Your task to perform on an android device: Go to Google maps Image 0: 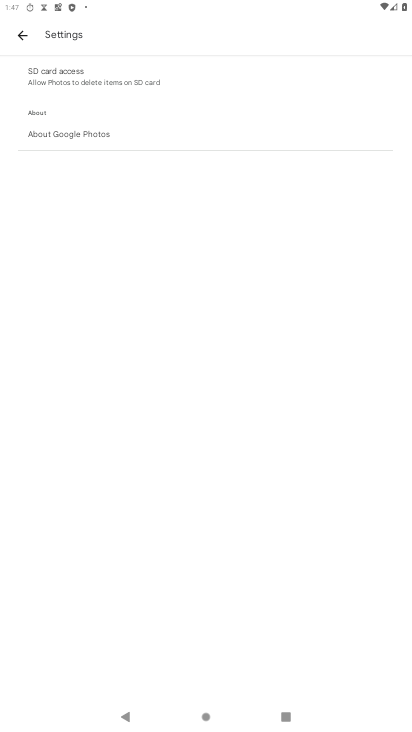
Step 0: press home button
Your task to perform on an android device: Go to Google maps Image 1: 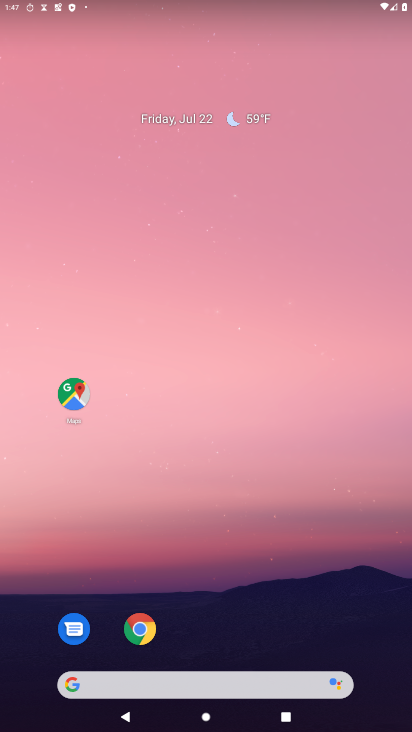
Step 1: drag from (297, 672) to (357, 25)
Your task to perform on an android device: Go to Google maps Image 2: 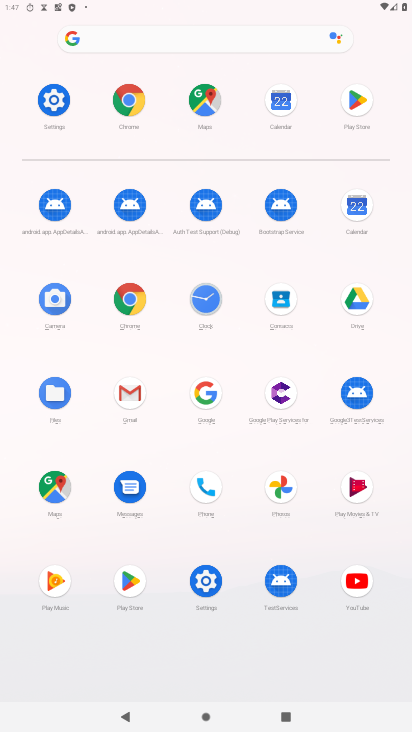
Step 2: click (52, 493)
Your task to perform on an android device: Go to Google maps Image 3: 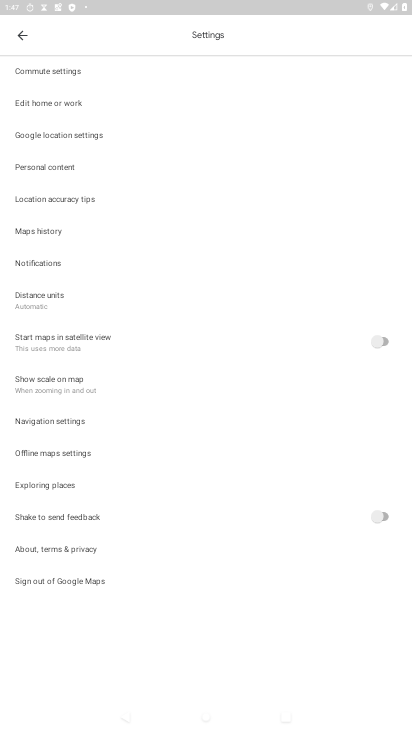
Step 3: task complete